Your task to perform on an android device: Show me recent news Image 0: 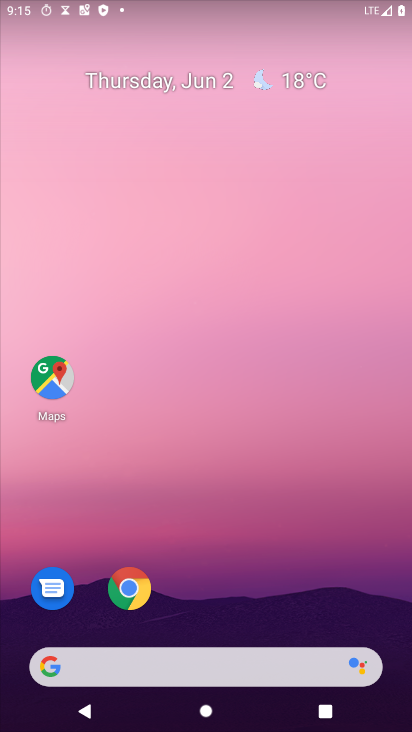
Step 0: click (170, 667)
Your task to perform on an android device: Show me recent news Image 1: 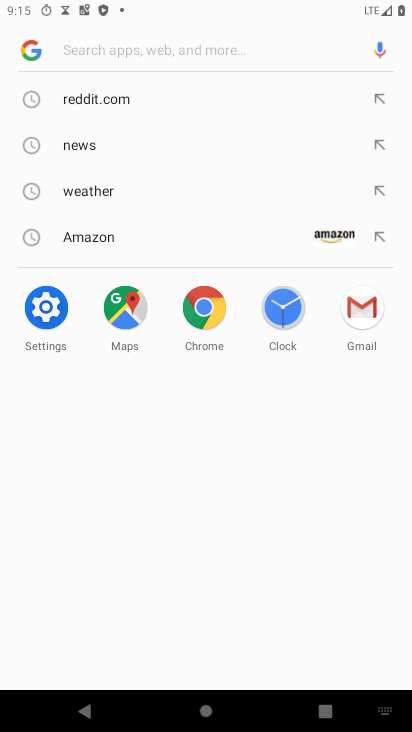
Step 1: click (95, 57)
Your task to perform on an android device: Show me recent news Image 2: 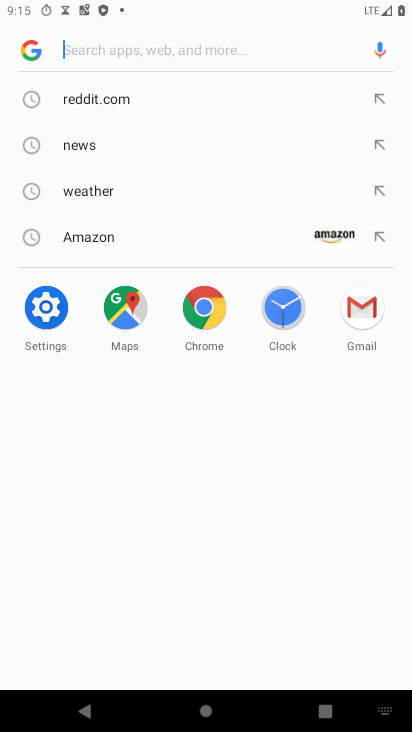
Step 2: type "recent news"
Your task to perform on an android device: Show me recent news Image 3: 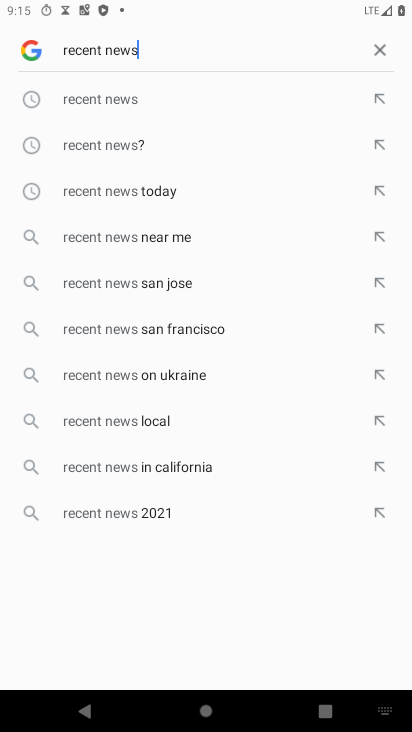
Step 3: click (112, 167)
Your task to perform on an android device: Show me recent news Image 4: 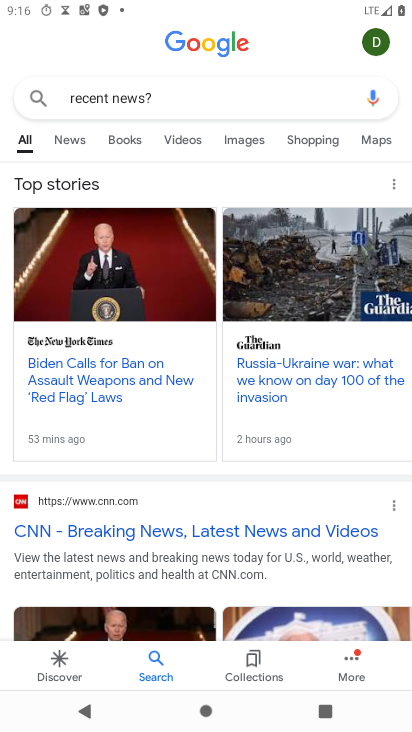
Step 4: task complete